Your task to perform on an android device: Open sound settings Image 0: 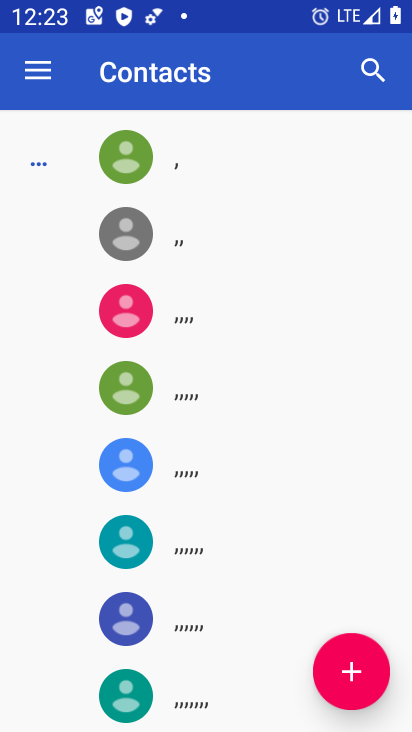
Step 0: press home button
Your task to perform on an android device: Open sound settings Image 1: 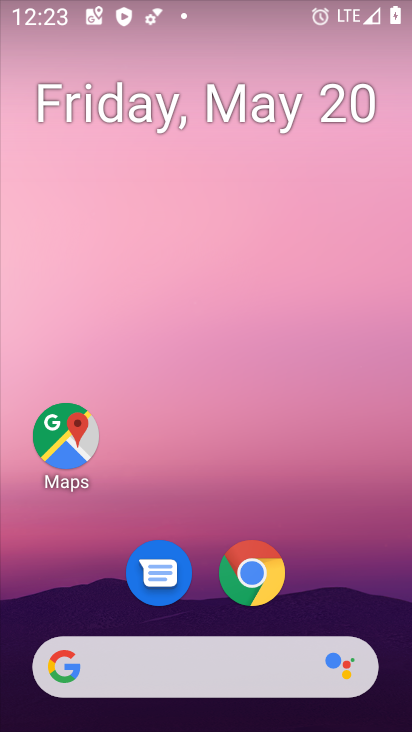
Step 1: drag from (200, 593) to (265, 84)
Your task to perform on an android device: Open sound settings Image 2: 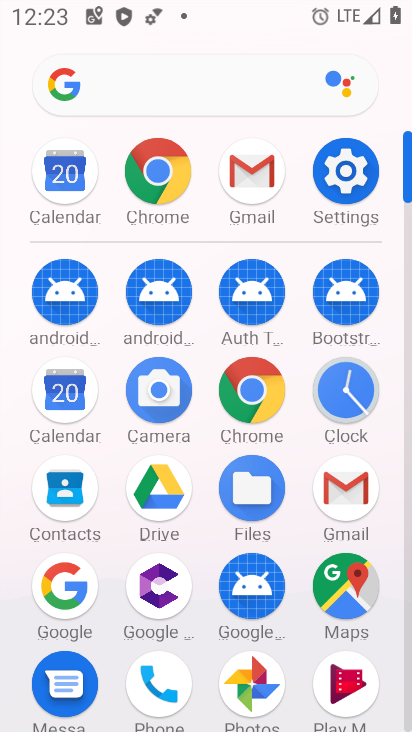
Step 2: click (342, 183)
Your task to perform on an android device: Open sound settings Image 3: 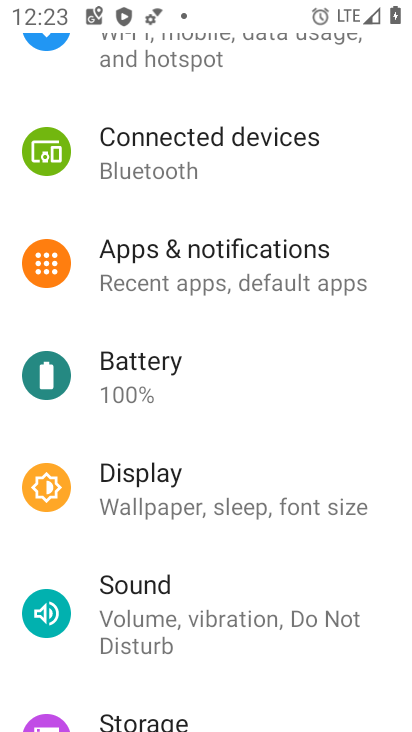
Step 3: click (181, 592)
Your task to perform on an android device: Open sound settings Image 4: 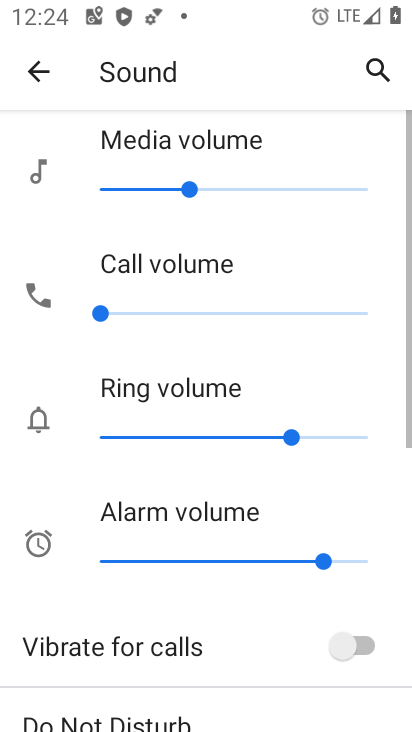
Step 4: task complete